Your task to perform on an android device: Check the news Image 0: 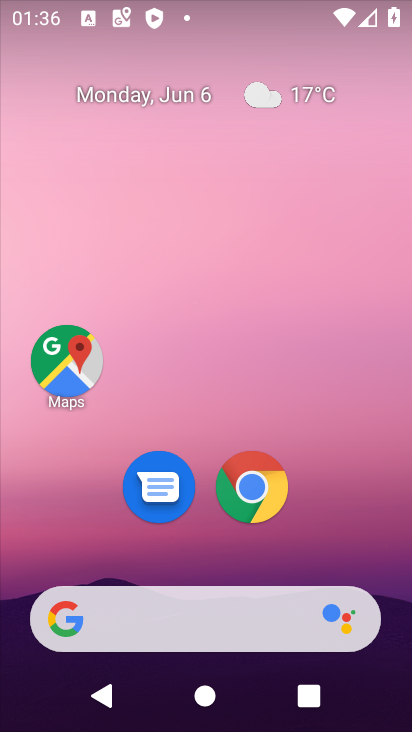
Step 0: drag from (4, 283) to (396, 281)
Your task to perform on an android device: Check the news Image 1: 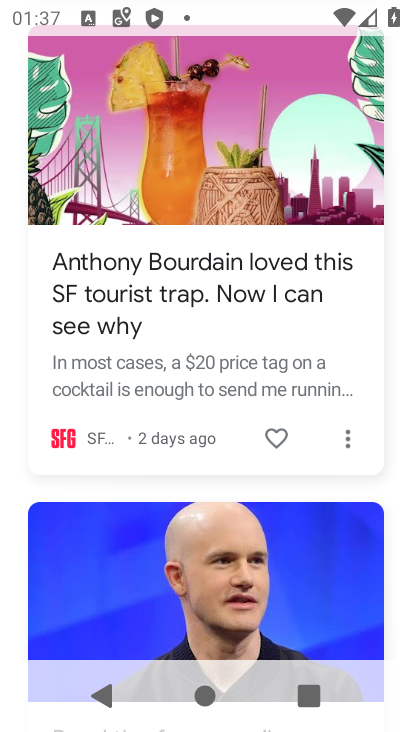
Step 1: task complete